Your task to perform on an android device: change the clock style Image 0: 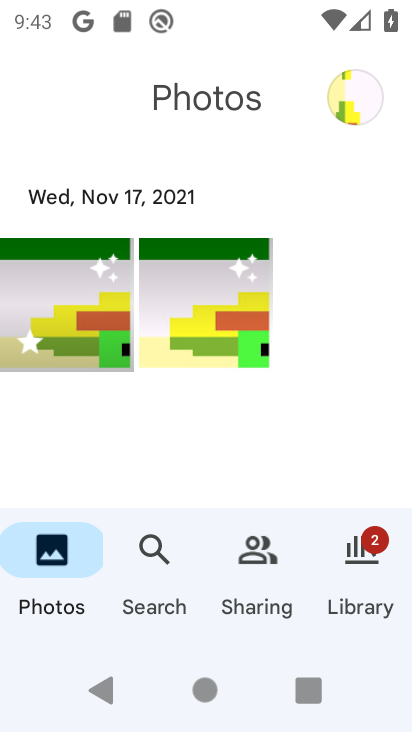
Step 0: press home button
Your task to perform on an android device: change the clock style Image 1: 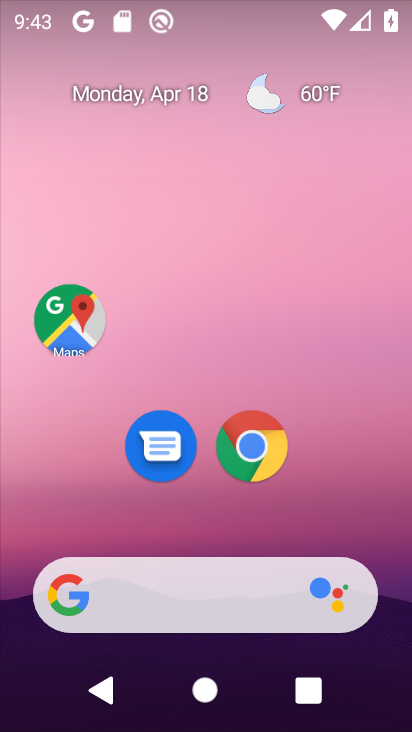
Step 1: drag from (382, 527) to (367, 108)
Your task to perform on an android device: change the clock style Image 2: 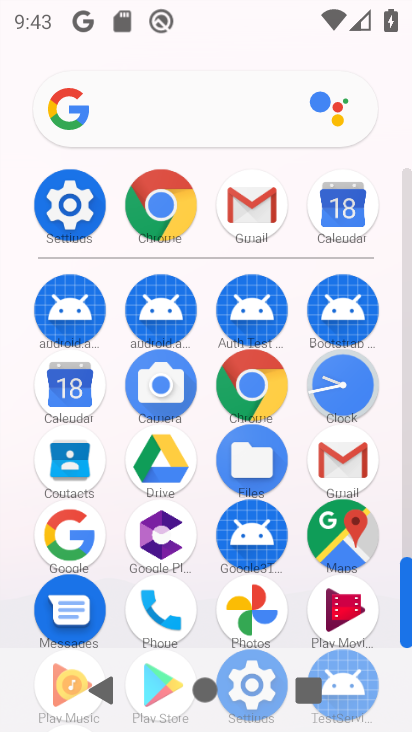
Step 2: click (352, 397)
Your task to perform on an android device: change the clock style Image 3: 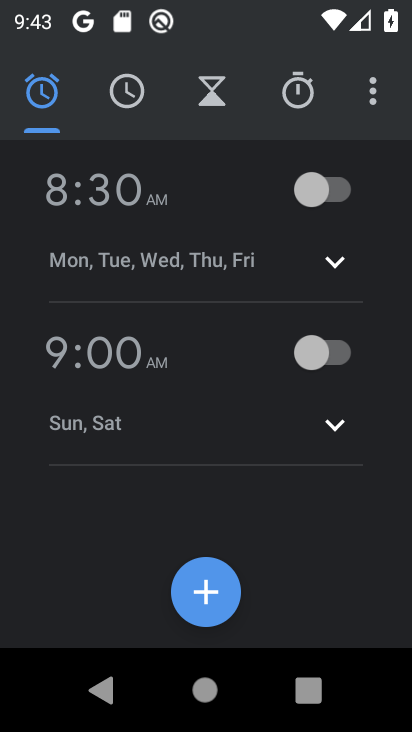
Step 3: click (373, 95)
Your task to perform on an android device: change the clock style Image 4: 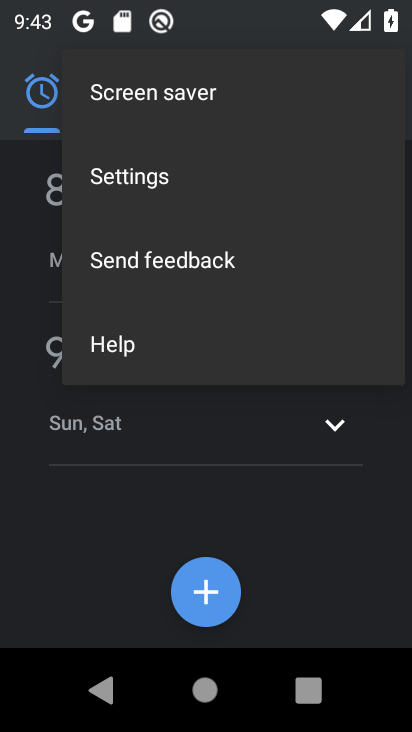
Step 4: click (144, 185)
Your task to perform on an android device: change the clock style Image 5: 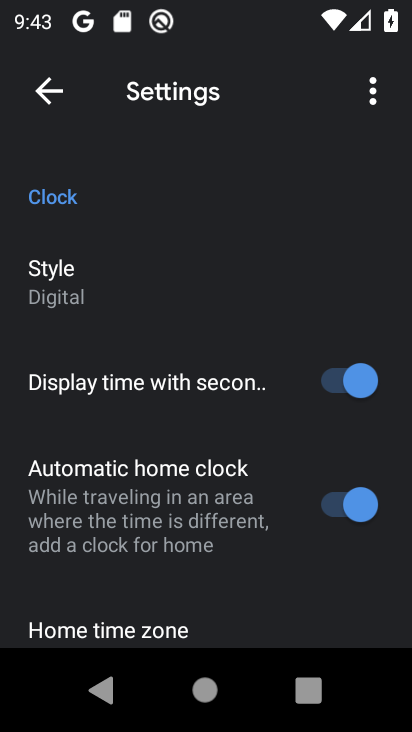
Step 5: drag from (295, 517) to (290, 289)
Your task to perform on an android device: change the clock style Image 6: 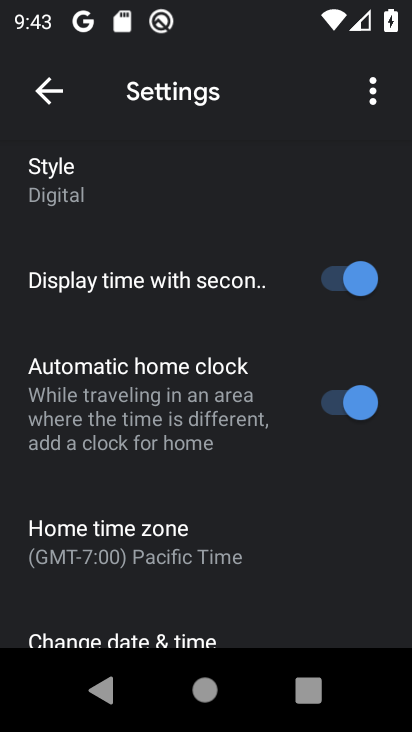
Step 6: drag from (274, 526) to (268, 308)
Your task to perform on an android device: change the clock style Image 7: 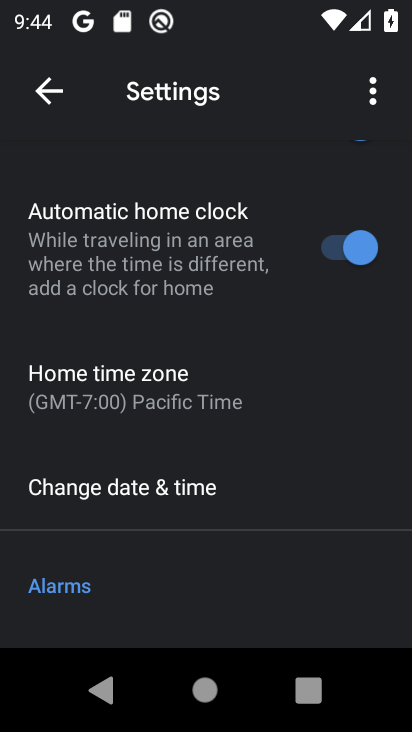
Step 7: drag from (283, 531) to (279, 307)
Your task to perform on an android device: change the clock style Image 8: 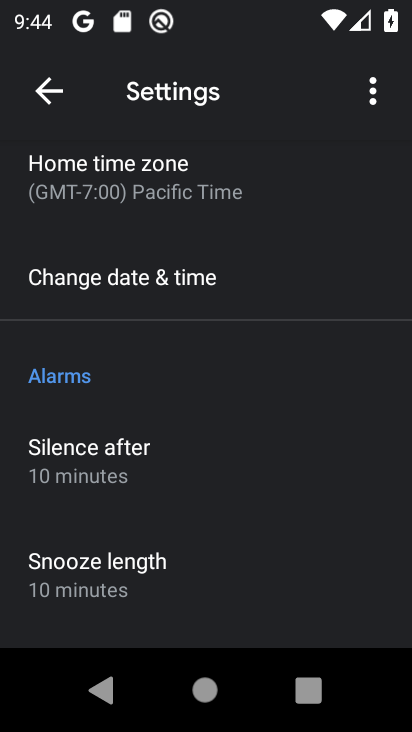
Step 8: drag from (298, 215) to (302, 464)
Your task to perform on an android device: change the clock style Image 9: 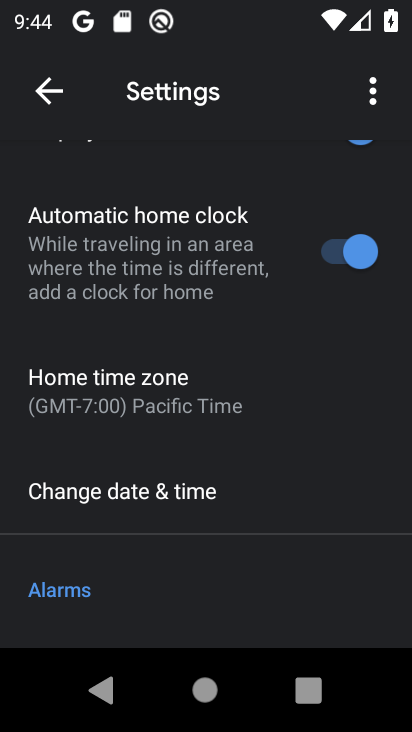
Step 9: drag from (290, 239) to (289, 485)
Your task to perform on an android device: change the clock style Image 10: 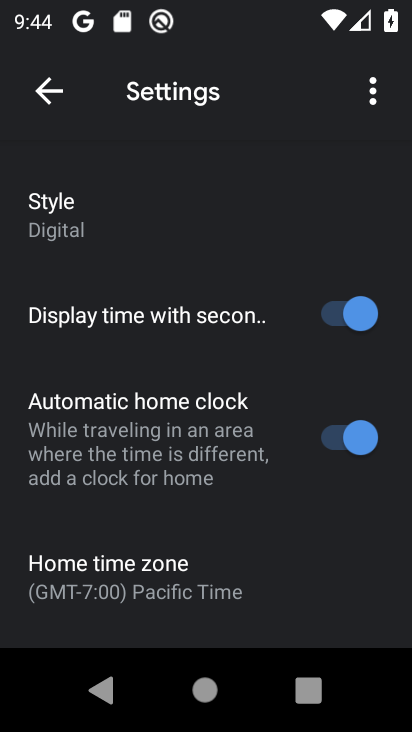
Step 10: click (47, 231)
Your task to perform on an android device: change the clock style Image 11: 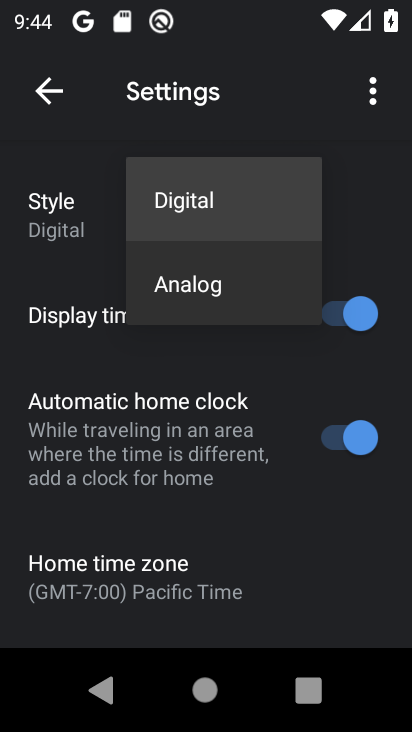
Step 11: click (205, 296)
Your task to perform on an android device: change the clock style Image 12: 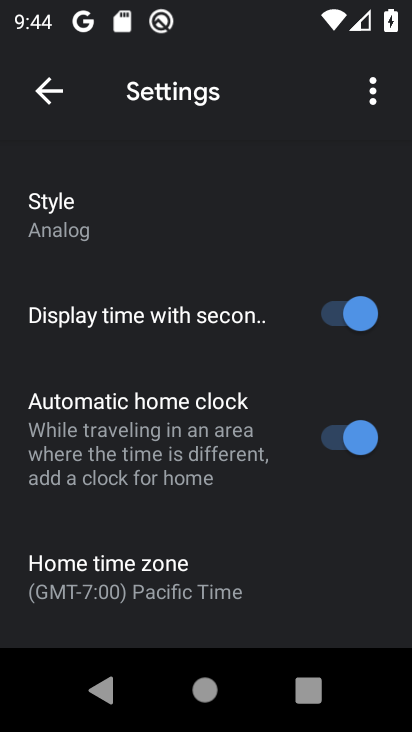
Step 12: task complete